Your task to perform on an android device: Toggle the flashlight Image 0: 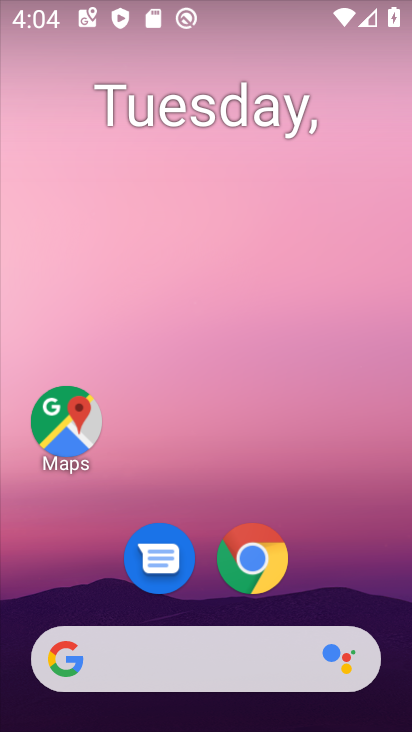
Step 0: drag from (288, 11) to (272, 534)
Your task to perform on an android device: Toggle the flashlight Image 1: 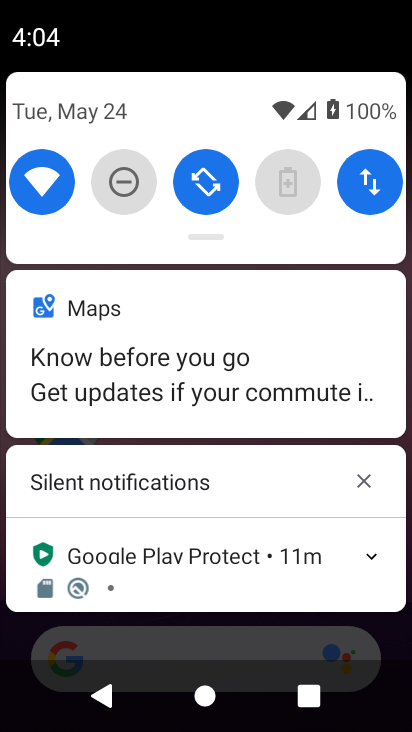
Step 1: task complete